Your task to perform on an android device: toggle data saver in the chrome app Image 0: 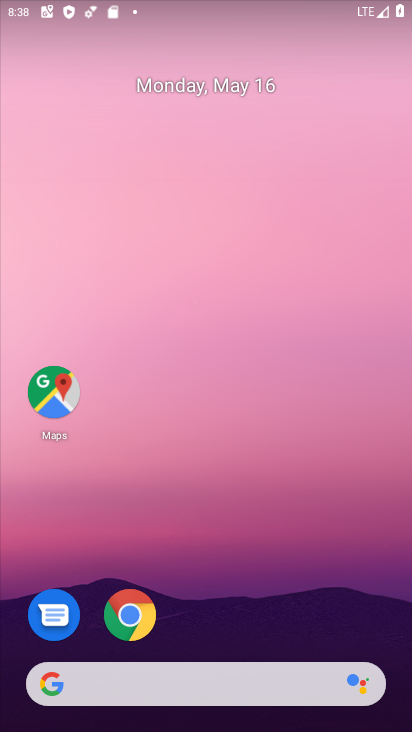
Step 0: drag from (253, 614) to (264, 122)
Your task to perform on an android device: toggle data saver in the chrome app Image 1: 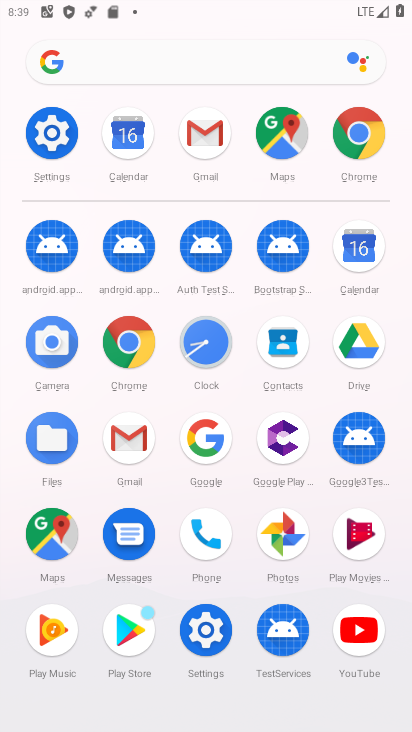
Step 1: click (368, 119)
Your task to perform on an android device: toggle data saver in the chrome app Image 2: 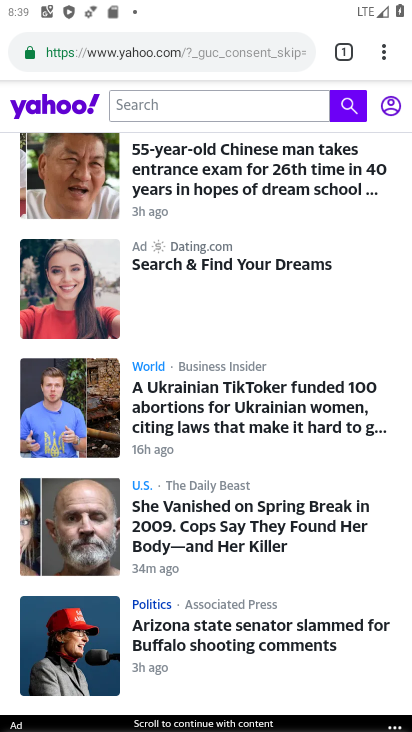
Step 2: click (383, 54)
Your task to perform on an android device: toggle data saver in the chrome app Image 3: 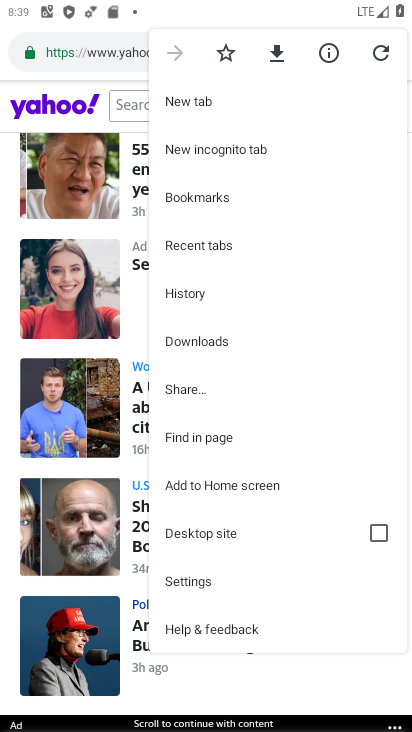
Step 3: drag from (243, 509) to (261, 364)
Your task to perform on an android device: toggle data saver in the chrome app Image 4: 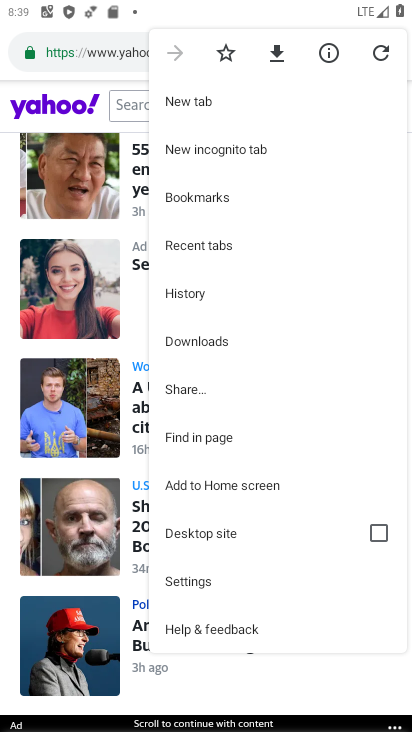
Step 4: click (214, 584)
Your task to perform on an android device: toggle data saver in the chrome app Image 5: 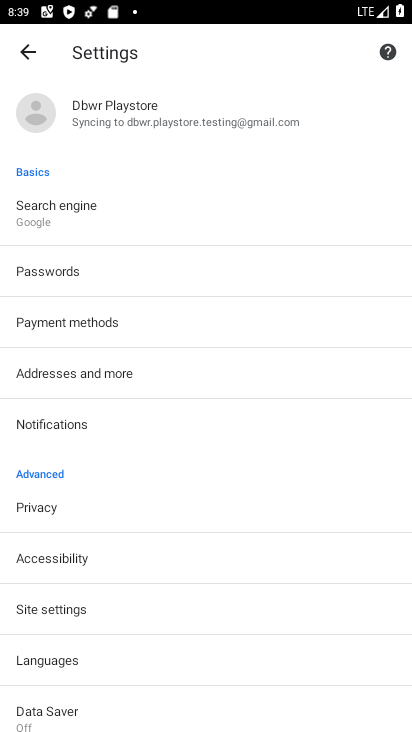
Step 5: drag from (199, 606) to (215, 401)
Your task to perform on an android device: toggle data saver in the chrome app Image 6: 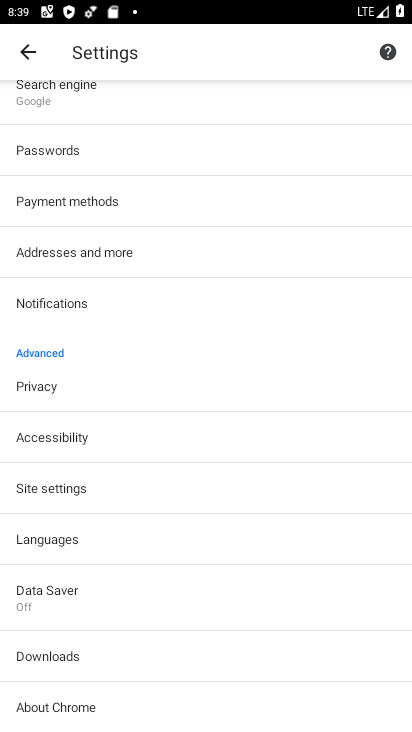
Step 6: drag from (154, 656) to (161, 553)
Your task to perform on an android device: toggle data saver in the chrome app Image 7: 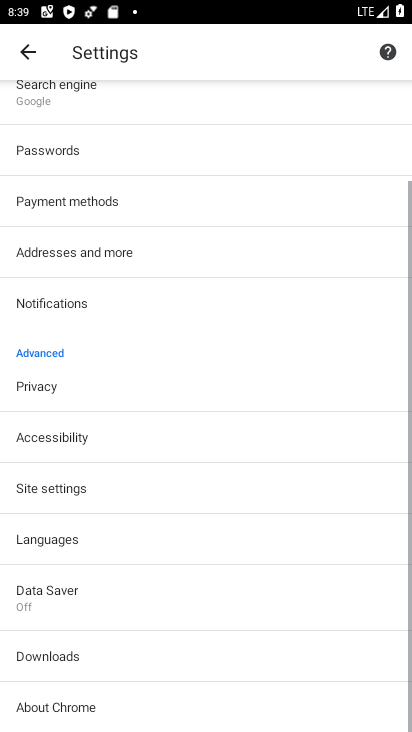
Step 7: click (150, 590)
Your task to perform on an android device: toggle data saver in the chrome app Image 8: 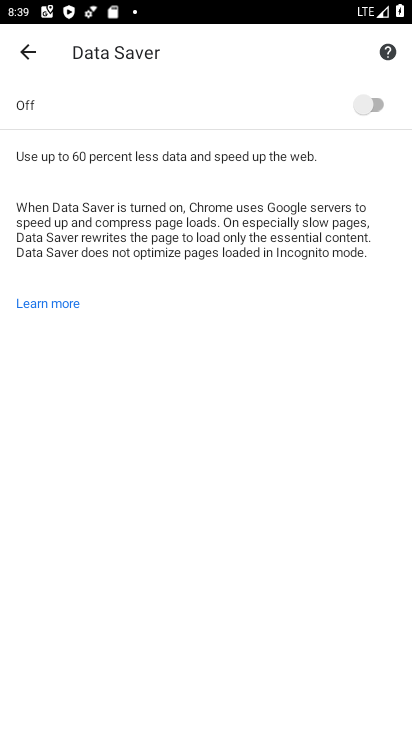
Step 8: click (379, 105)
Your task to perform on an android device: toggle data saver in the chrome app Image 9: 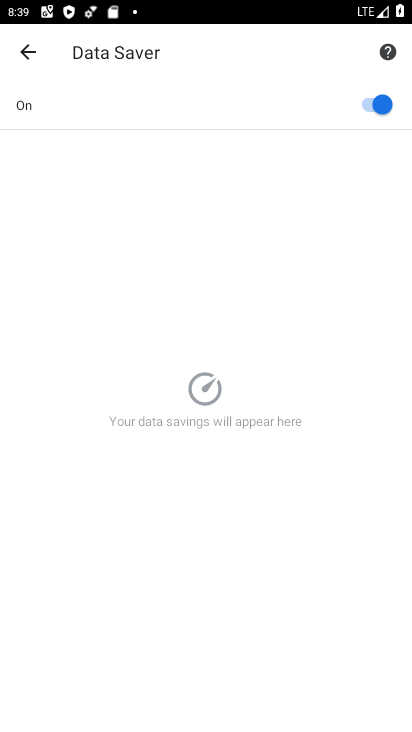
Step 9: task complete